Your task to perform on an android device: toggle airplane mode Image 0: 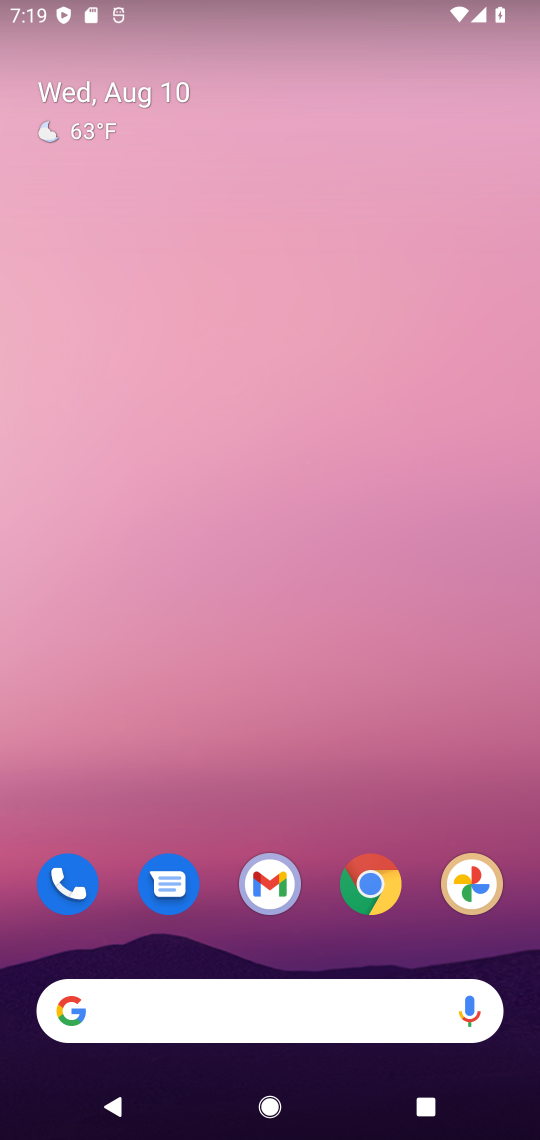
Step 0: press home button
Your task to perform on an android device: toggle airplane mode Image 1: 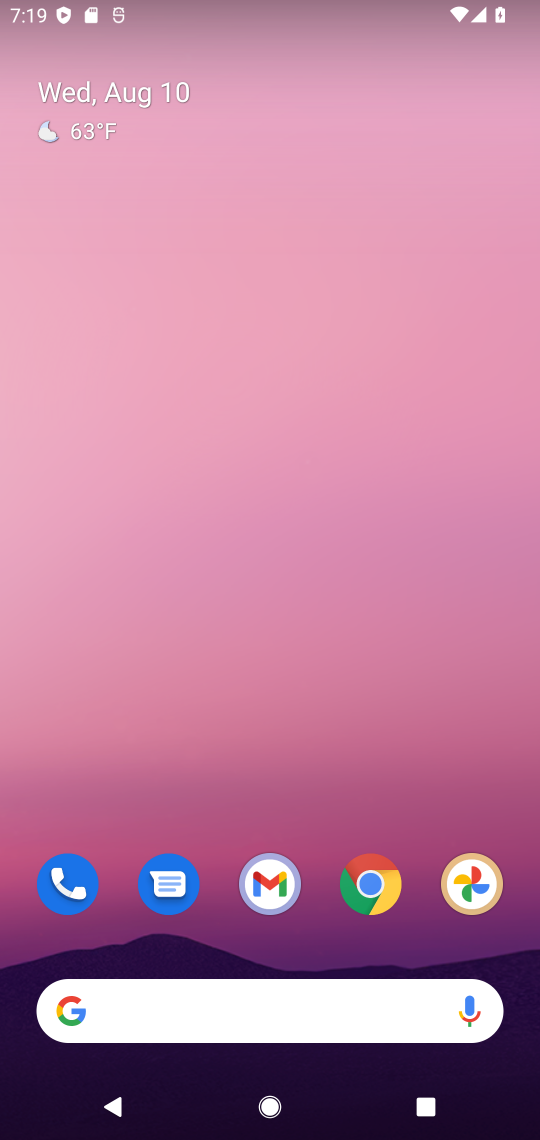
Step 1: drag from (317, 945) to (340, 170)
Your task to perform on an android device: toggle airplane mode Image 2: 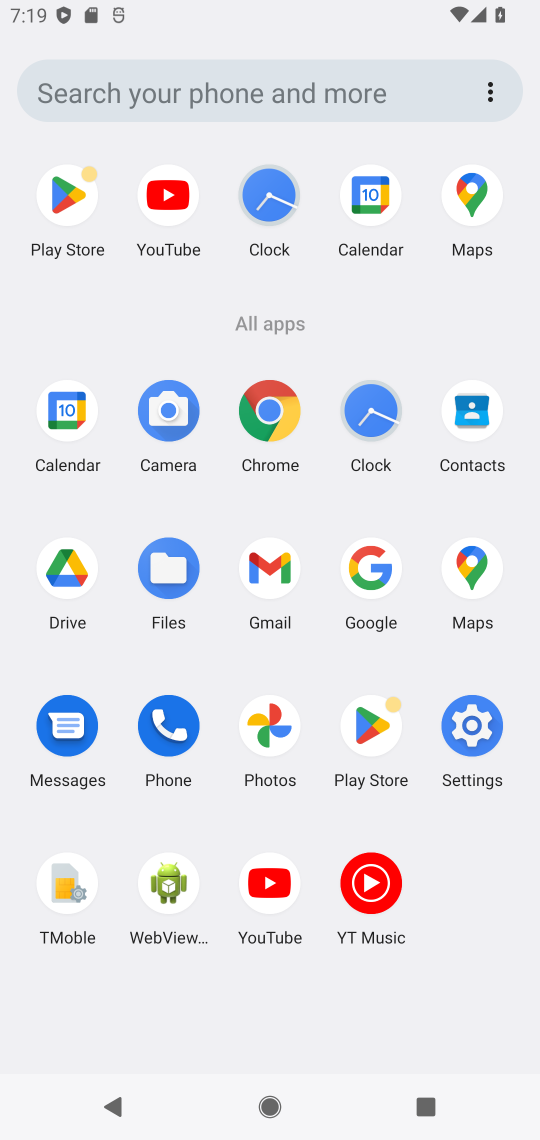
Step 2: click (472, 721)
Your task to perform on an android device: toggle airplane mode Image 3: 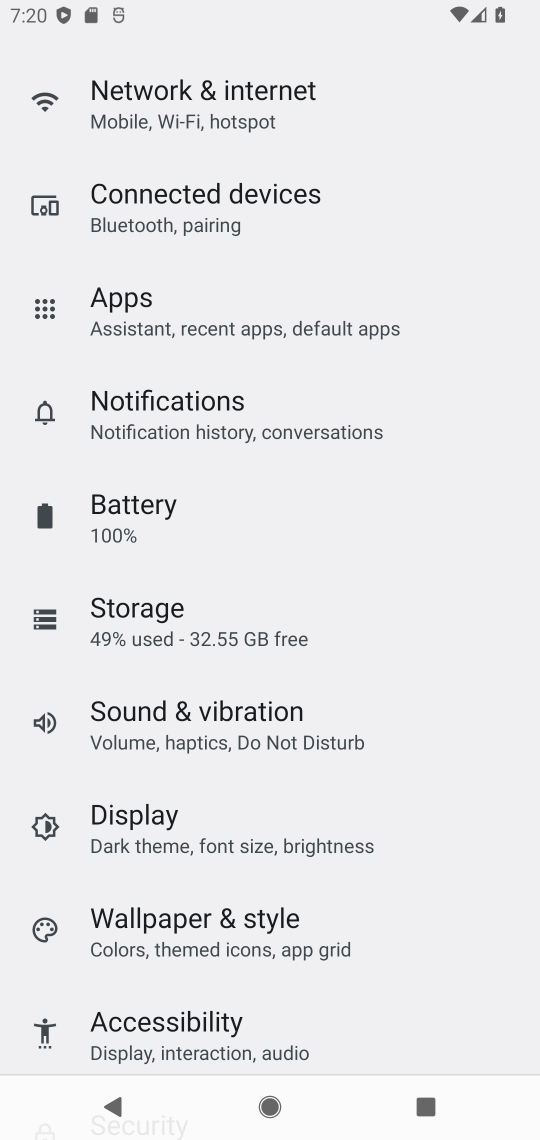
Step 3: drag from (319, 269) to (310, 798)
Your task to perform on an android device: toggle airplane mode Image 4: 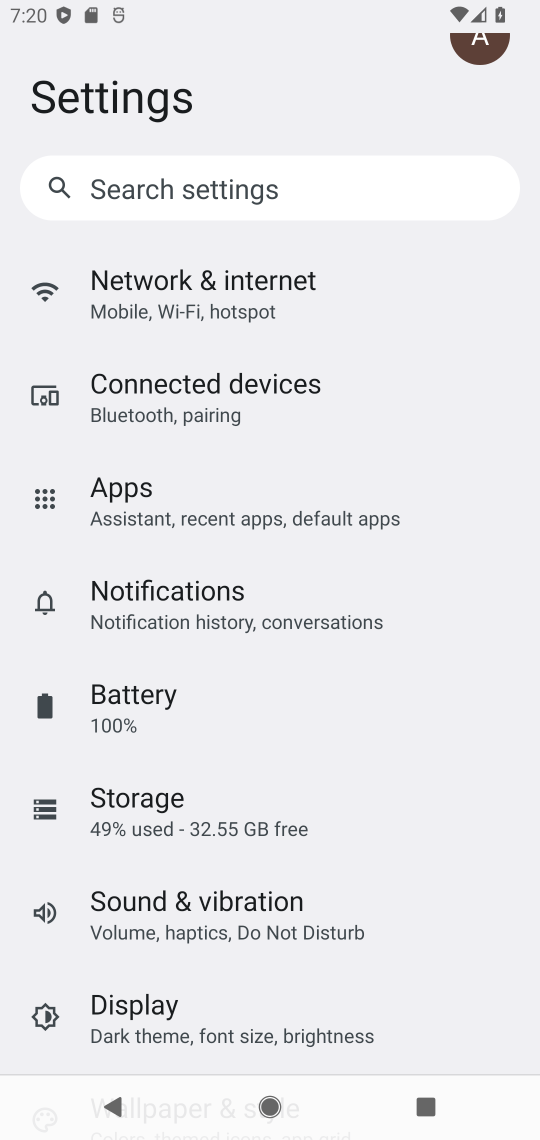
Step 4: click (200, 290)
Your task to perform on an android device: toggle airplane mode Image 5: 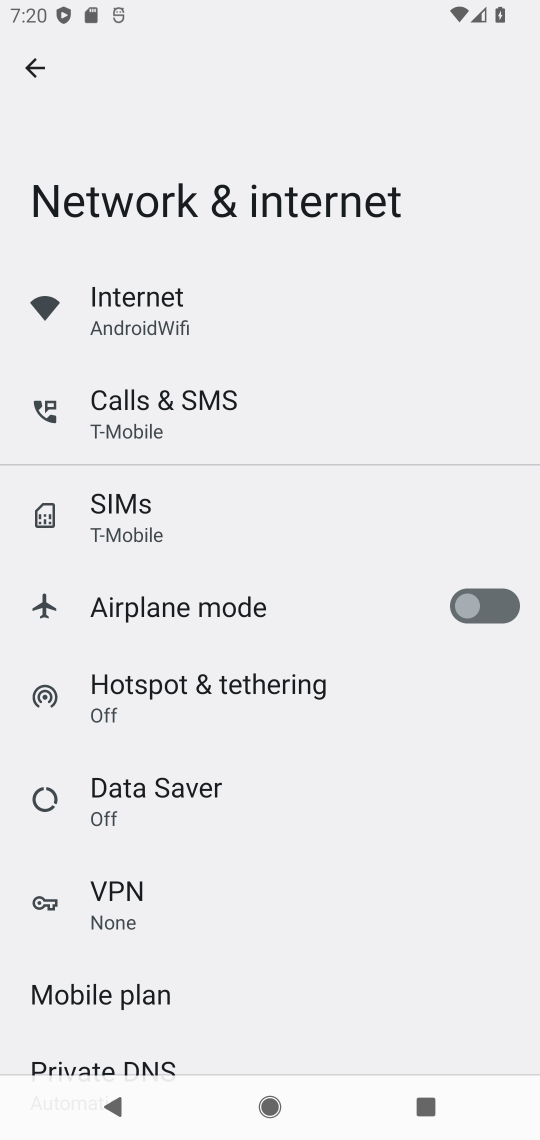
Step 5: click (469, 611)
Your task to perform on an android device: toggle airplane mode Image 6: 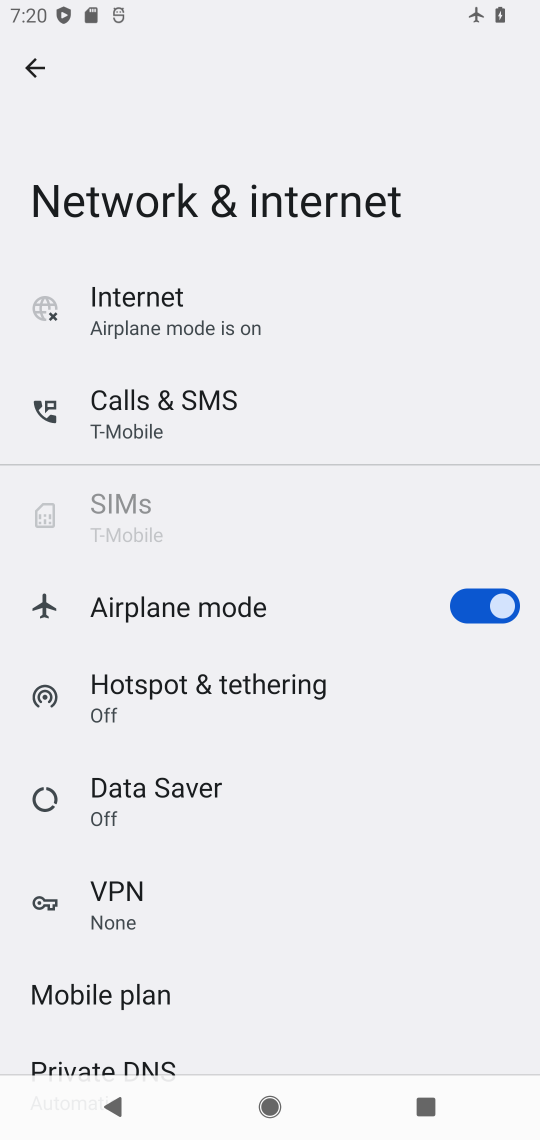
Step 6: task complete